Your task to perform on an android device: find snoozed emails in the gmail app Image 0: 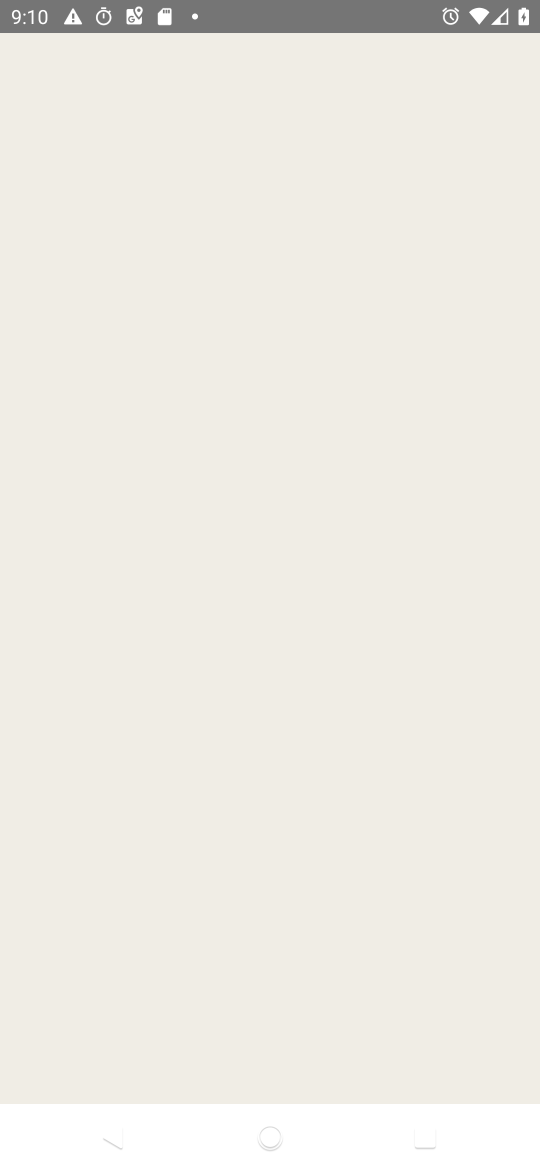
Step 0: click (352, 264)
Your task to perform on an android device: find snoozed emails in the gmail app Image 1: 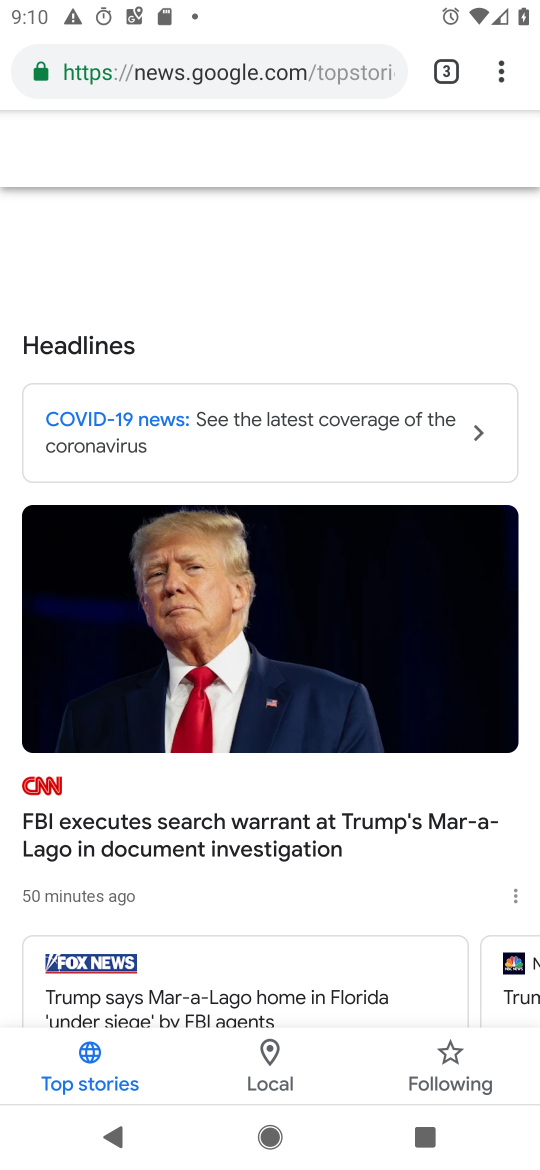
Step 1: drag from (315, 1011) to (328, 283)
Your task to perform on an android device: find snoozed emails in the gmail app Image 2: 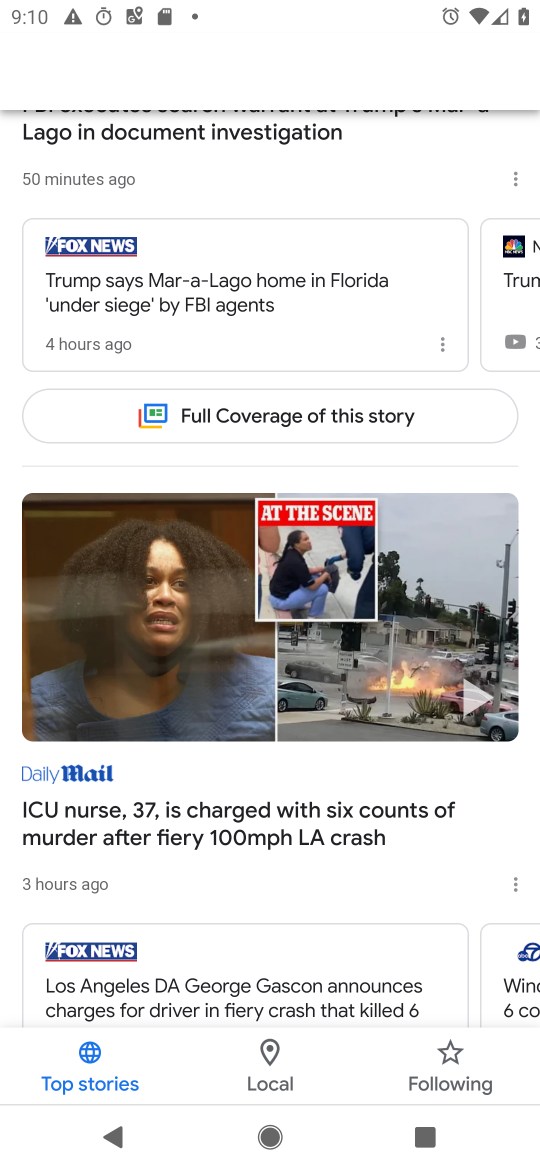
Step 2: press home button
Your task to perform on an android device: find snoozed emails in the gmail app Image 3: 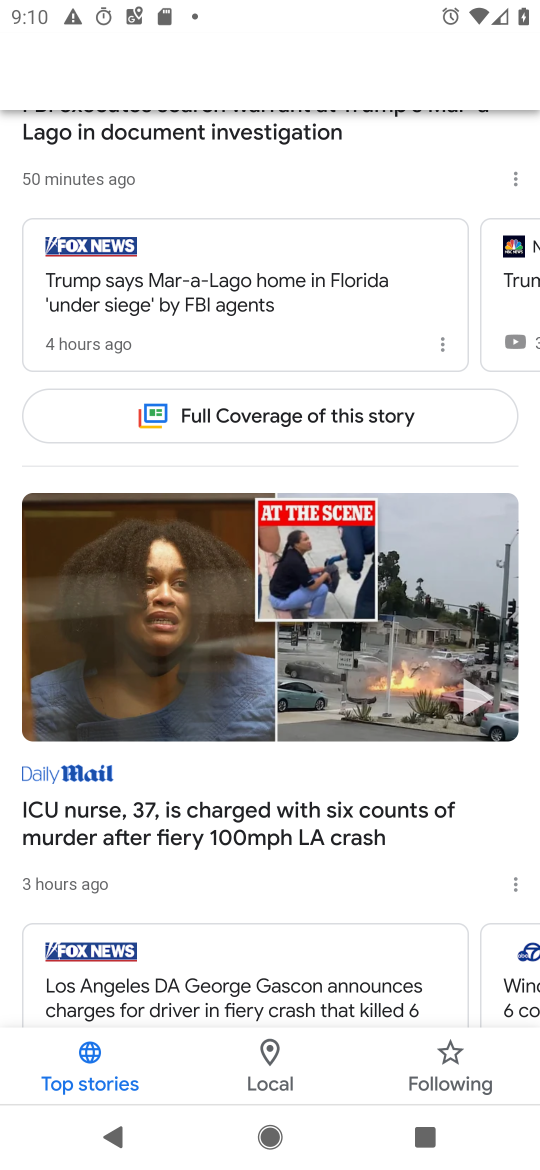
Step 3: drag from (254, 921) to (313, 334)
Your task to perform on an android device: find snoozed emails in the gmail app Image 4: 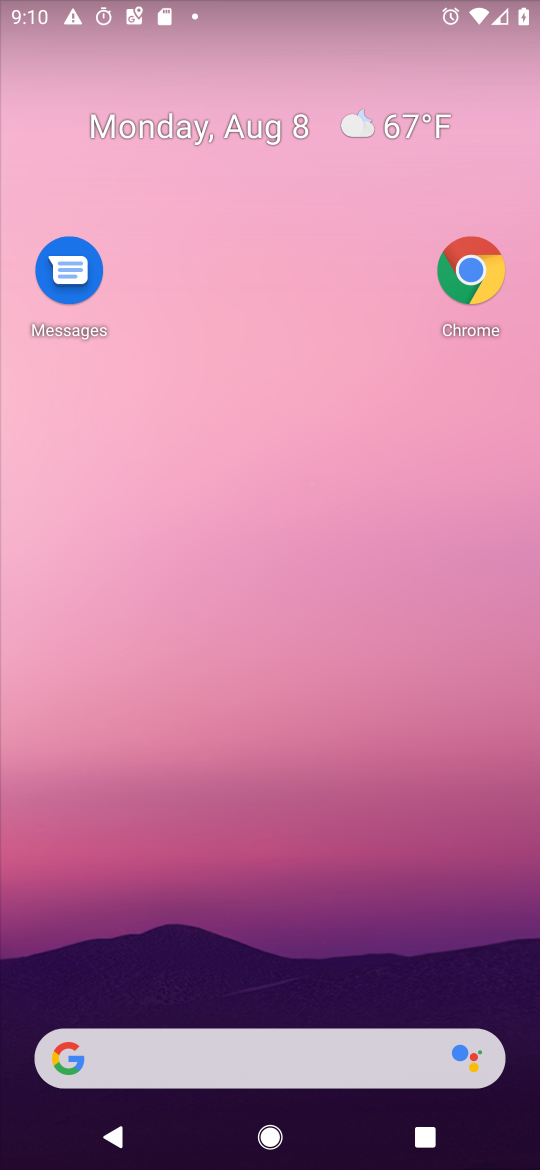
Step 4: drag from (290, 544) to (307, 124)
Your task to perform on an android device: find snoozed emails in the gmail app Image 5: 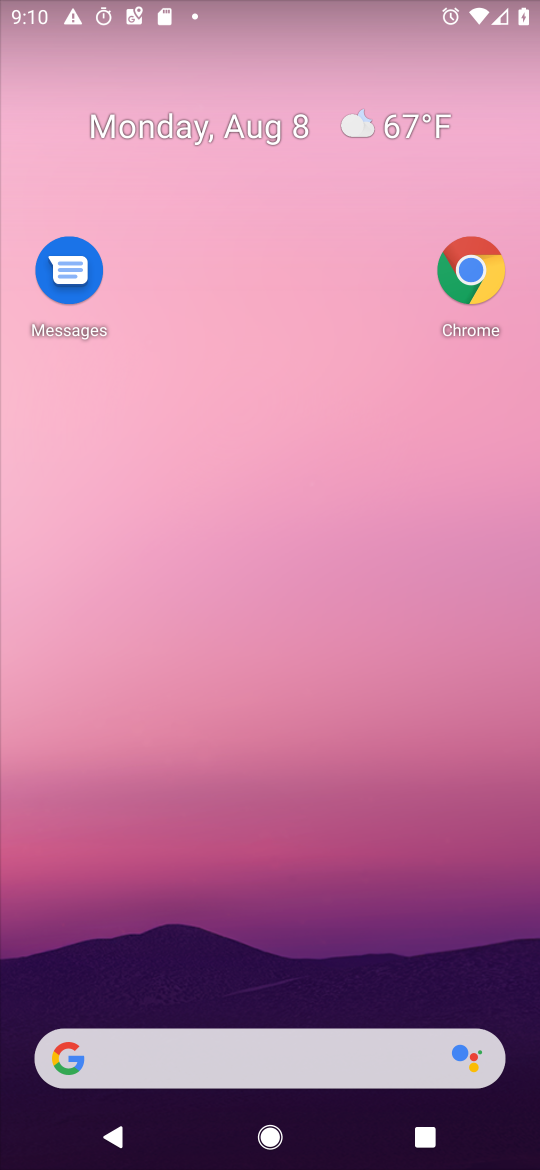
Step 5: drag from (288, 732) to (334, 2)
Your task to perform on an android device: find snoozed emails in the gmail app Image 6: 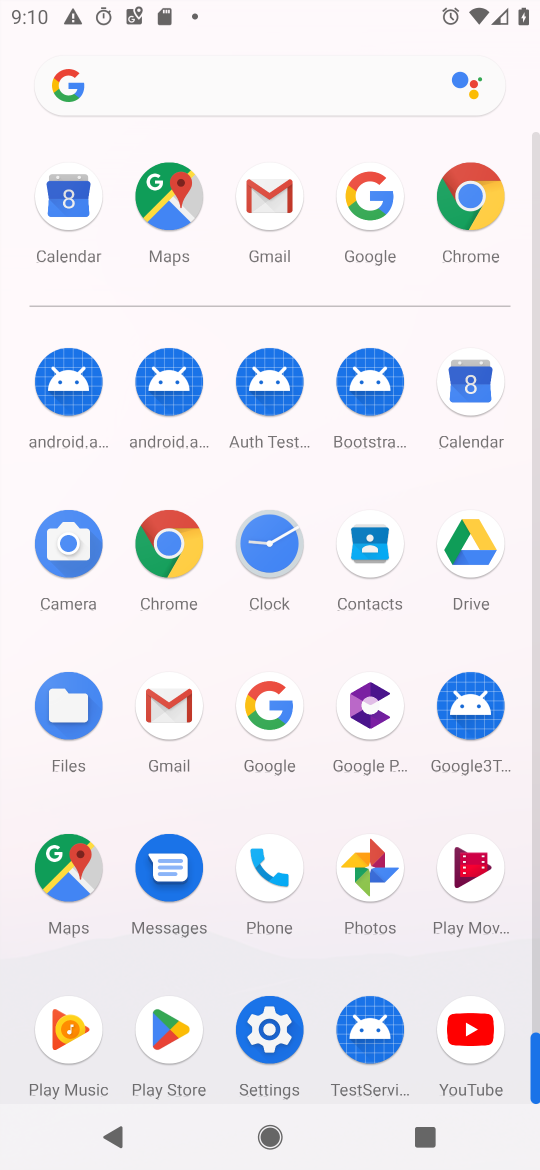
Step 6: click (164, 692)
Your task to perform on an android device: find snoozed emails in the gmail app Image 7: 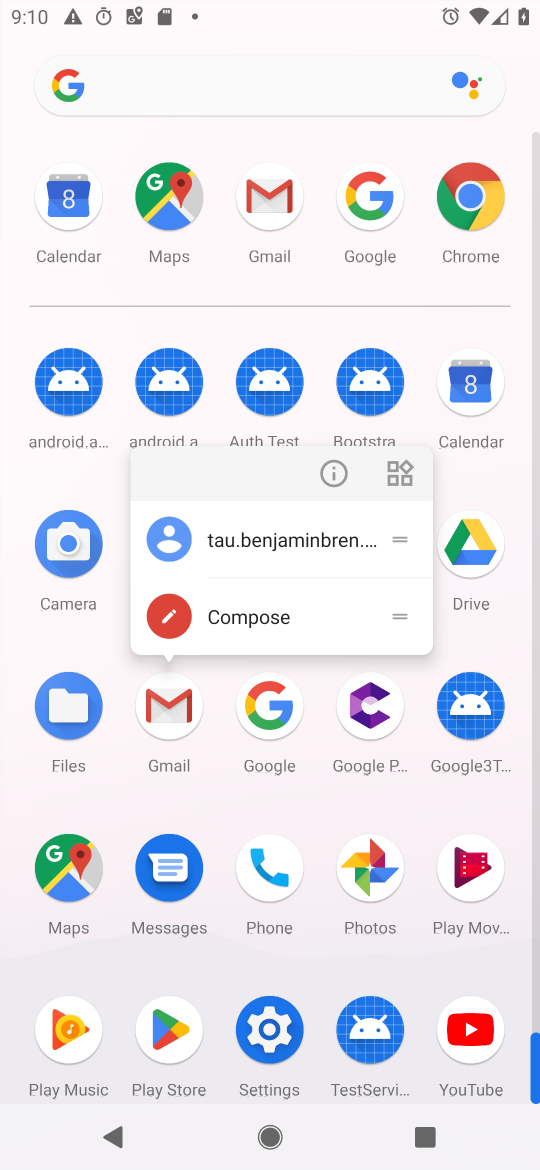
Step 7: click (325, 472)
Your task to perform on an android device: find snoozed emails in the gmail app Image 8: 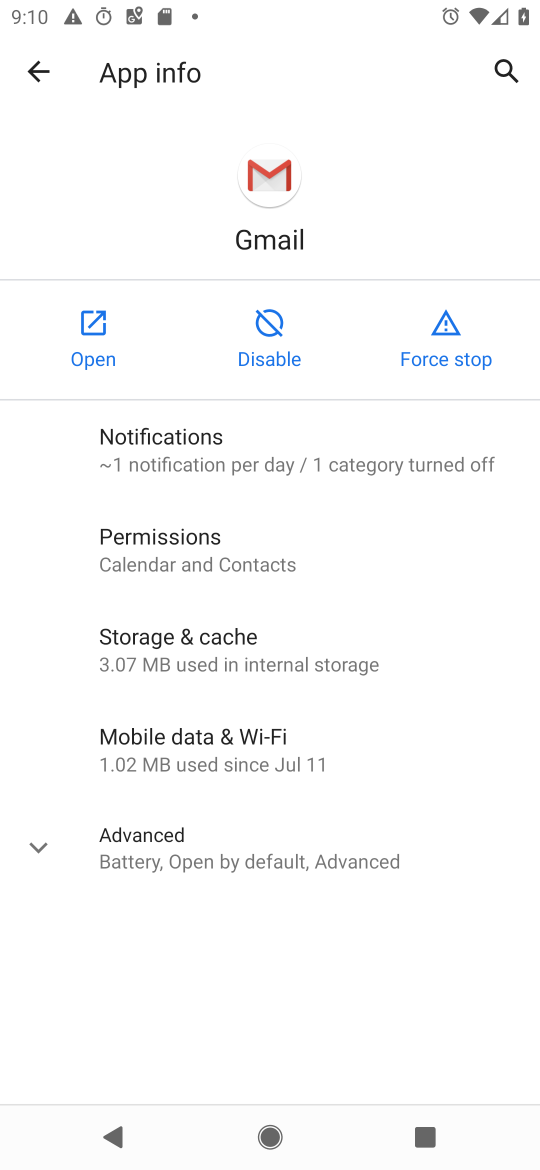
Step 8: click (85, 343)
Your task to perform on an android device: find snoozed emails in the gmail app Image 9: 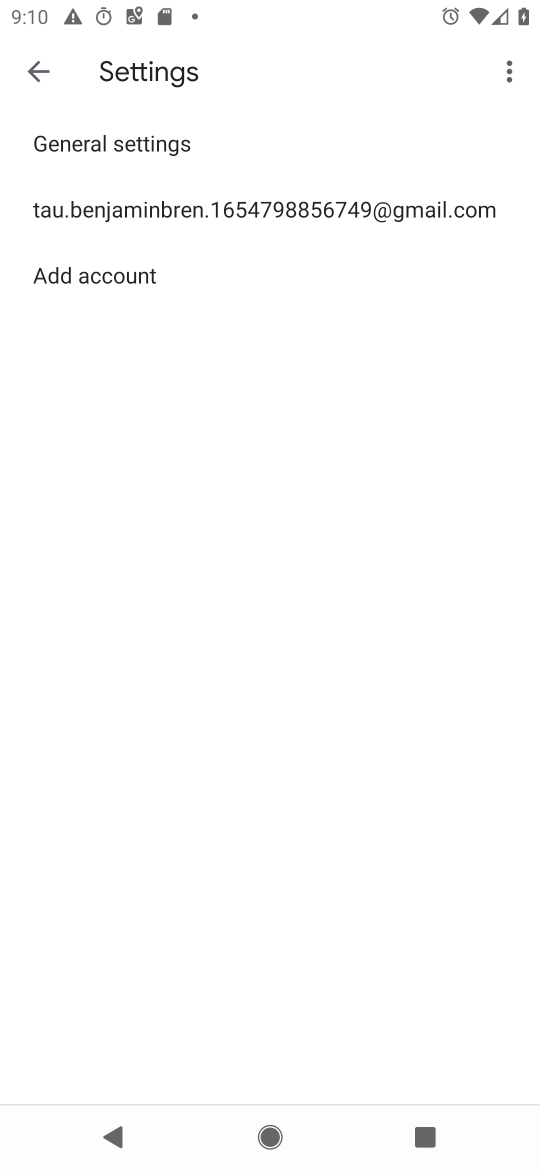
Step 9: click (233, 206)
Your task to perform on an android device: find snoozed emails in the gmail app Image 10: 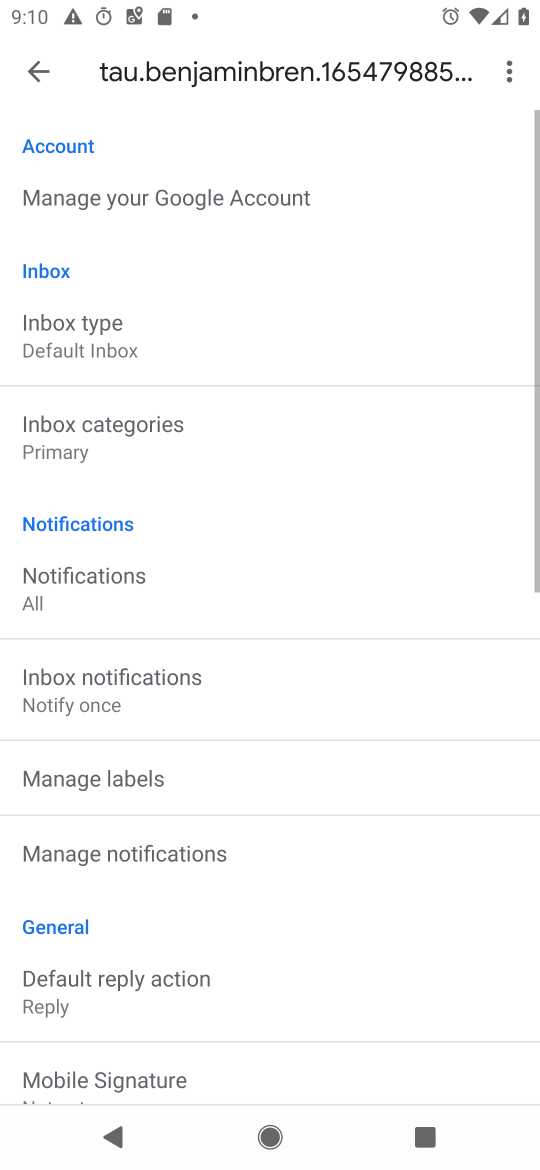
Step 10: drag from (207, 864) to (260, 379)
Your task to perform on an android device: find snoozed emails in the gmail app Image 11: 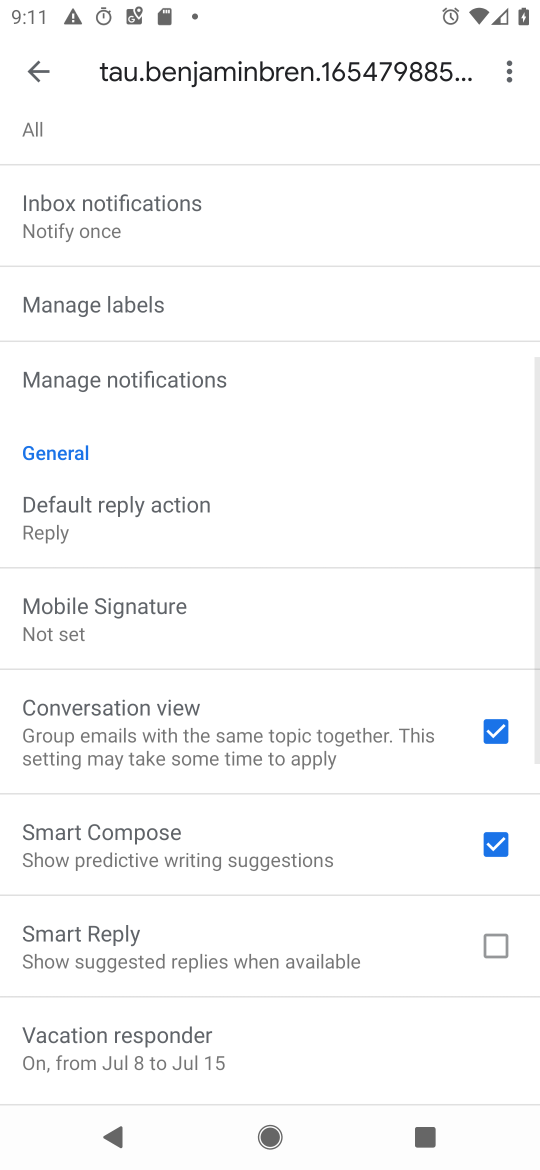
Step 11: drag from (194, 1012) to (324, 505)
Your task to perform on an android device: find snoozed emails in the gmail app Image 12: 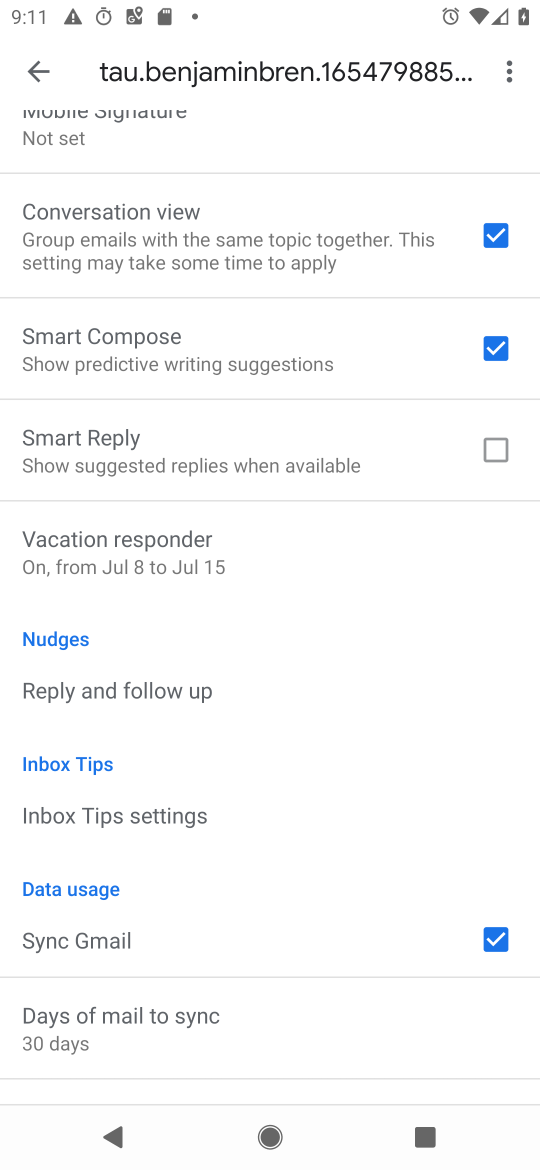
Step 12: drag from (351, 432) to (207, 941)
Your task to perform on an android device: find snoozed emails in the gmail app Image 13: 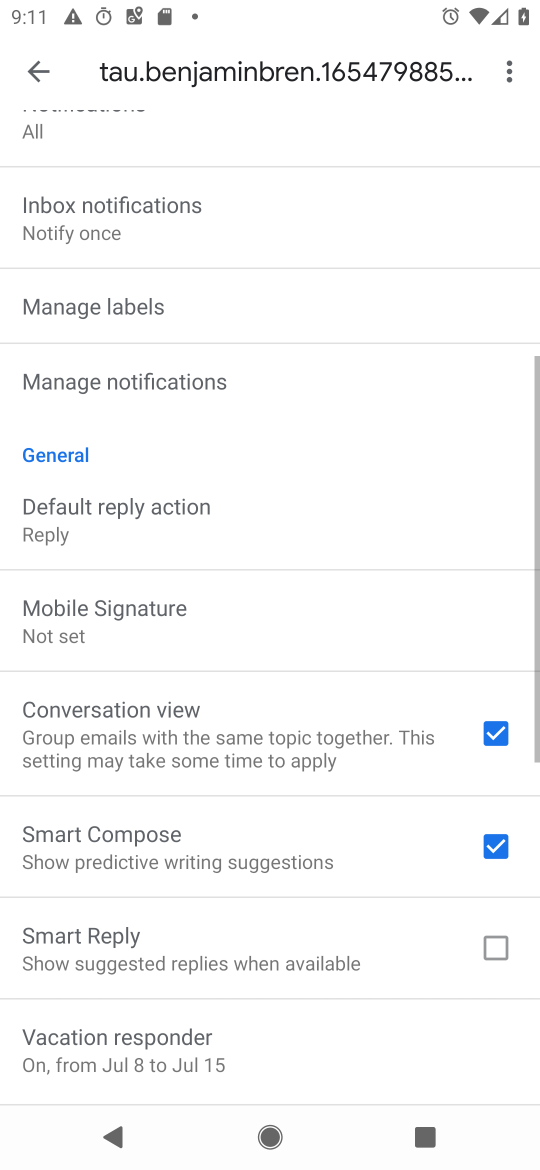
Step 13: click (61, 64)
Your task to perform on an android device: find snoozed emails in the gmail app Image 14: 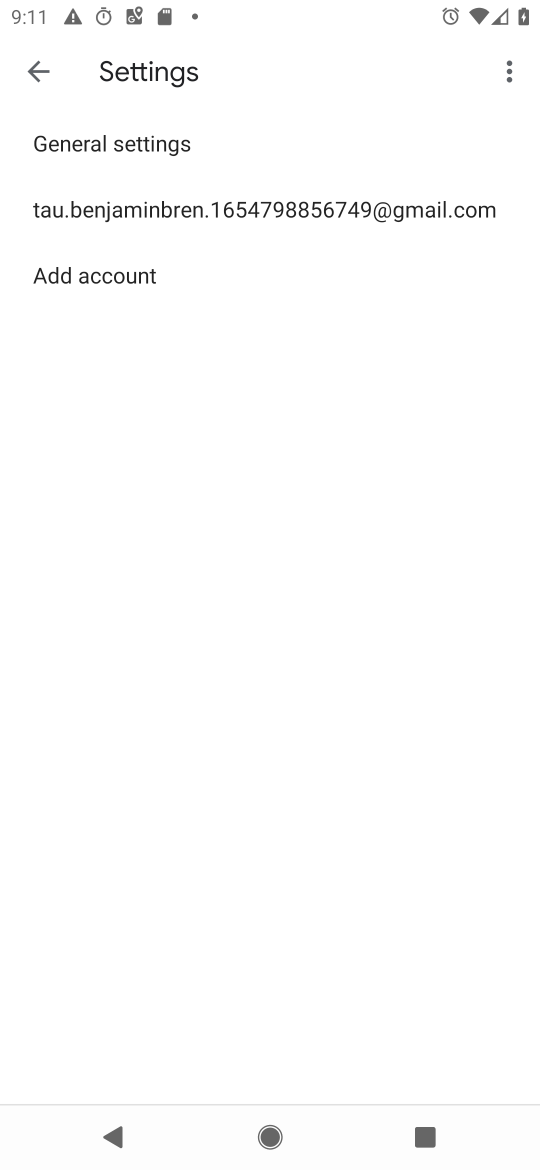
Step 14: click (58, 64)
Your task to perform on an android device: find snoozed emails in the gmail app Image 15: 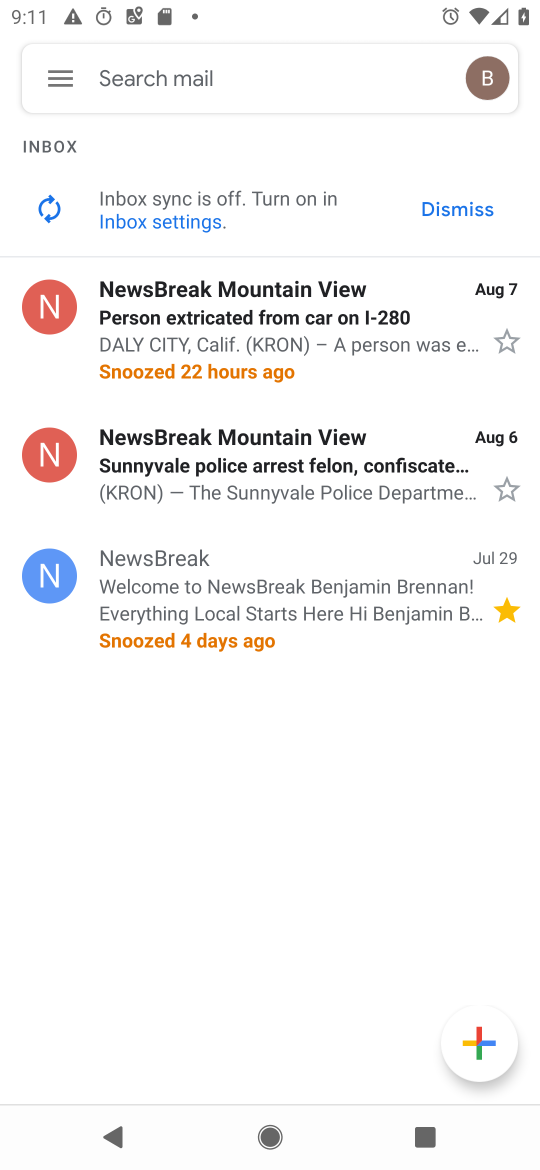
Step 15: click (58, 74)
Your task to perform on an android device: find snoozed emails in the gmail app Image 16: 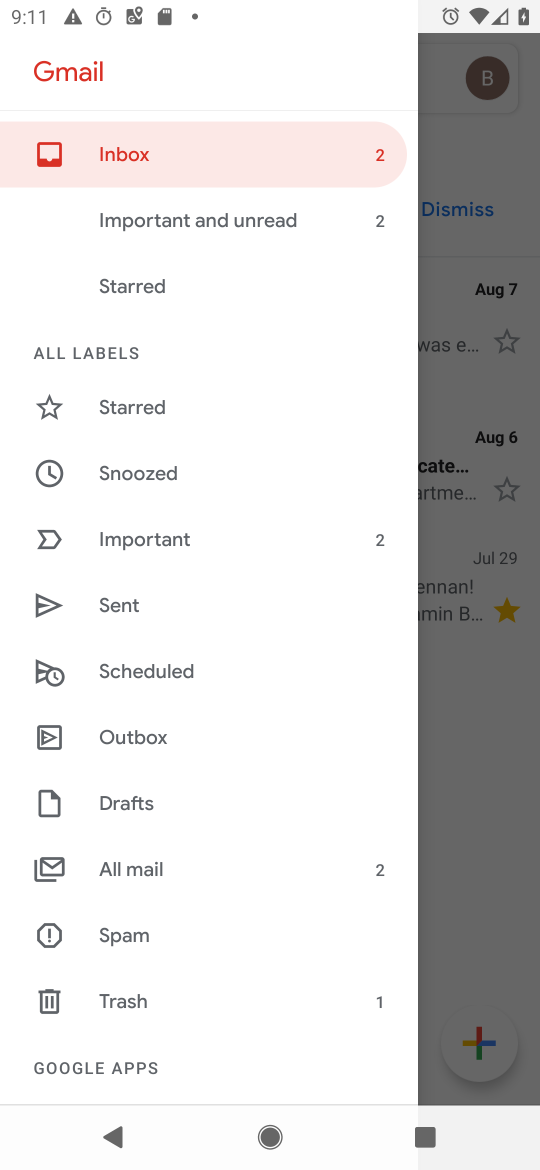
Step 16: click (137, 466)
Your task to perform on an android device: find snoozed emails in the gmail app Image 17: 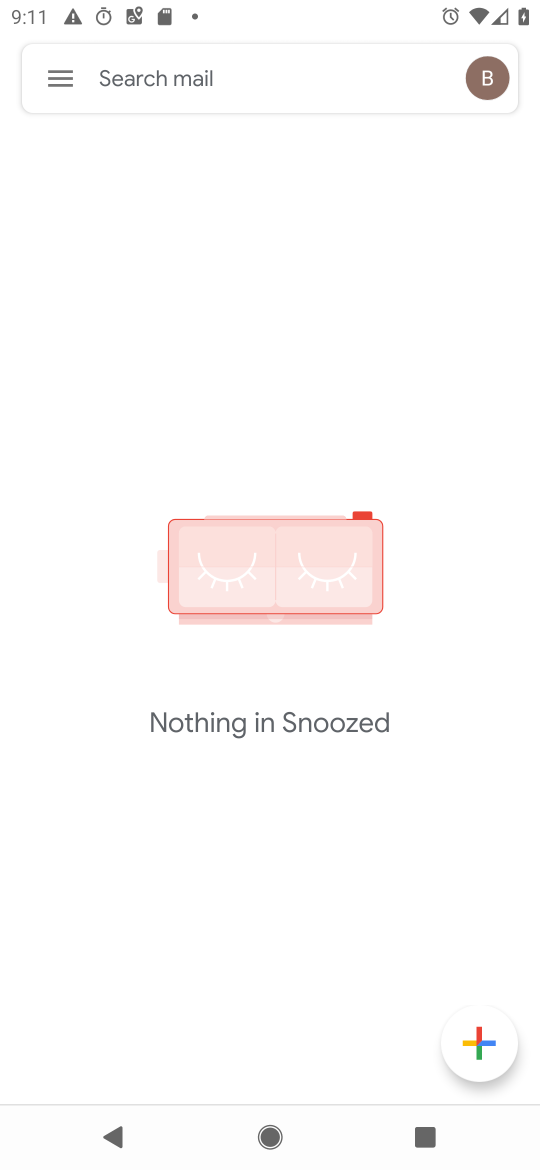
Step 17: task complete